Your task to perform on an android device: allow notifications from all sites in the chrome app Image 0: 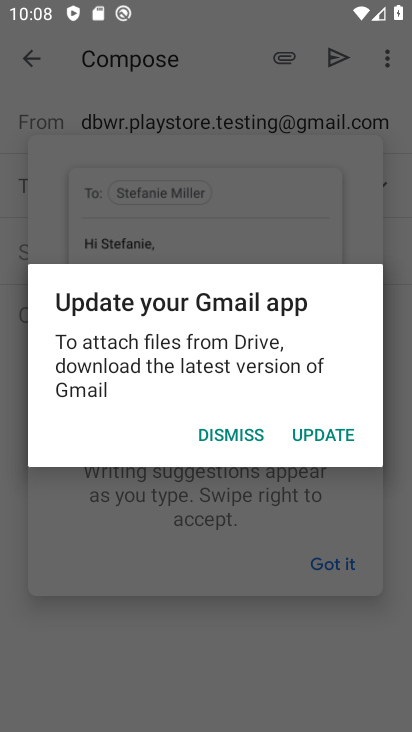
Step 0: press home button
Your task to perform on an android device: allow notifications from all sites in the chrome app Image 1: 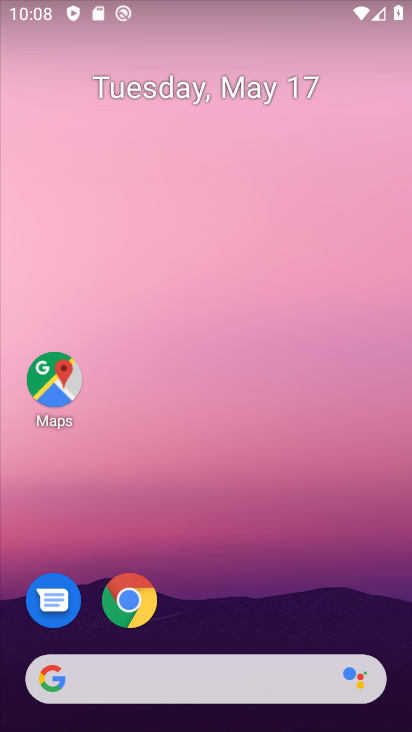
Step 1: drag from (359, 608) to (373, 256)
Your task to perform on an android device: allow notifications from all sites in the chrome app Image 2: 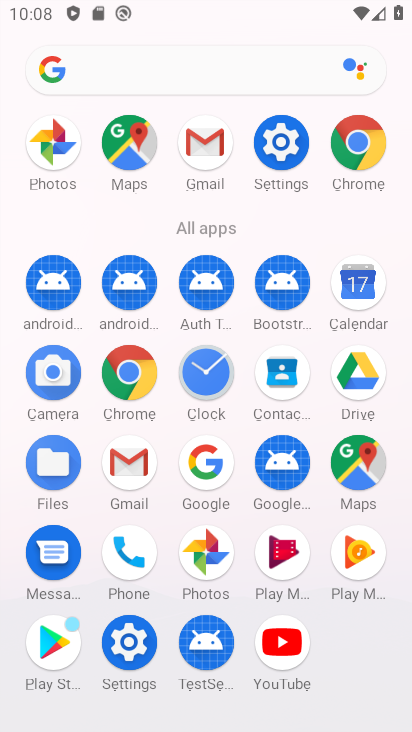
Step 2: click (117, 384)
Your task to perform on an android device: allow notifications from all sites in the chrome app Image 3: 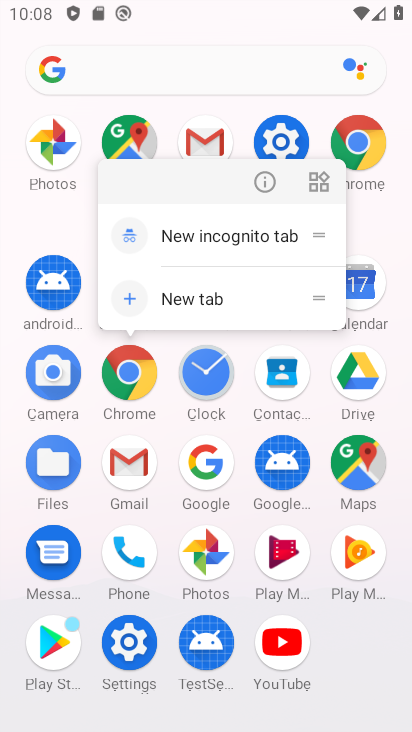
Step 3: click (117, 384)
Your task to perform on an android device: allow notifications from all sites in the chrome app Image 4: 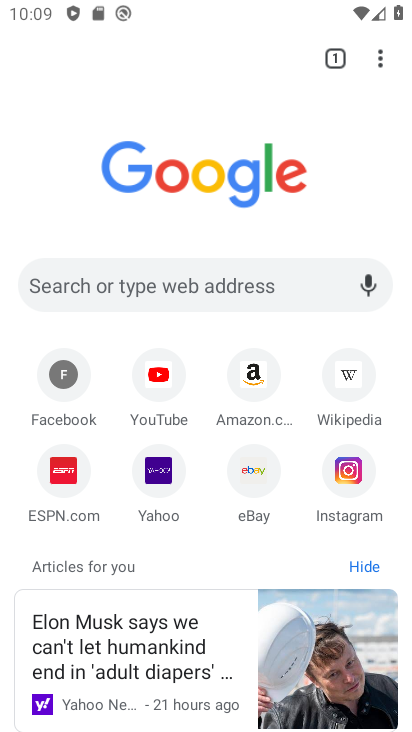
Step 4: click (384, 63)
Your task to perform on an android device: allow notifications from all sites in the chrome app Image 5: 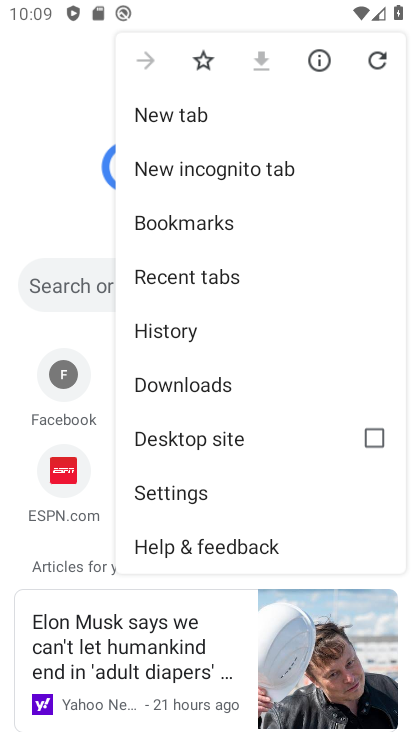
Step 5: click (214, 495)
Your task to perform on an android device: allow notifications from all sites in the chrome app Image 6: 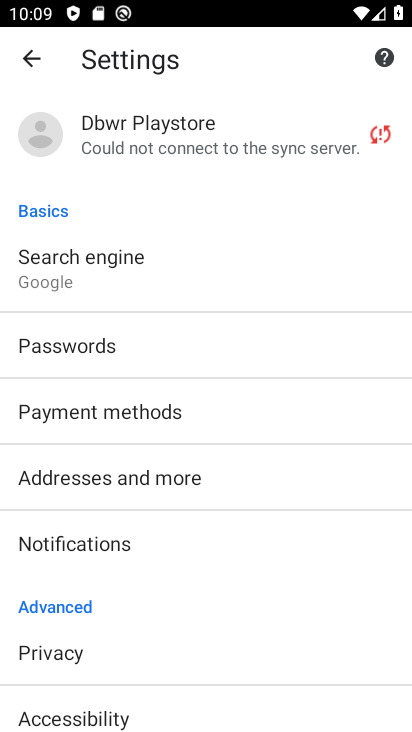
Step 6: drag from (272, 556) to (296, 450)
Your task to perform on an android device: allow notifications from all sites in the chrome app Image 7: 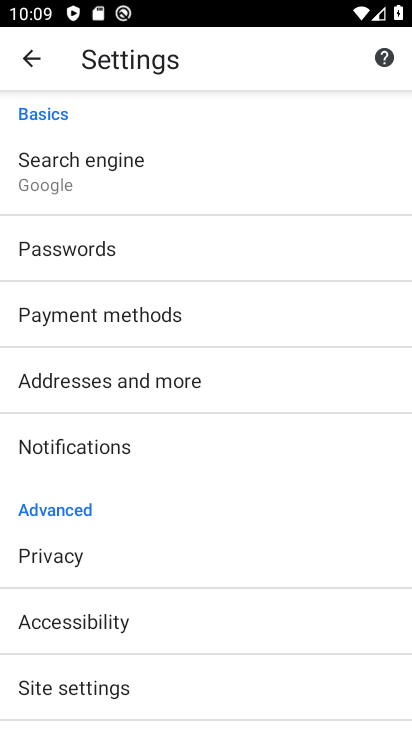
Step 7: drag from (288, 632) to (288, 518)
Your task to perform on an android device: allow notifications from all sites in the chrome app Image 8: 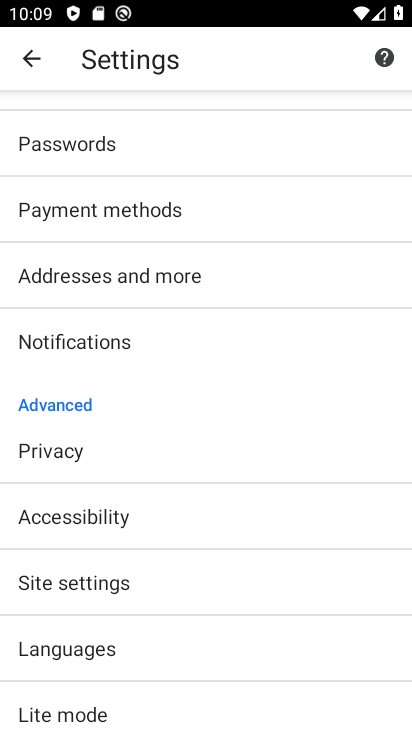
Step 8: drag from (281, 667) to (301, 573)
Your task to perform on an android device: allow notifications from all sites in the chrome app Image 9: 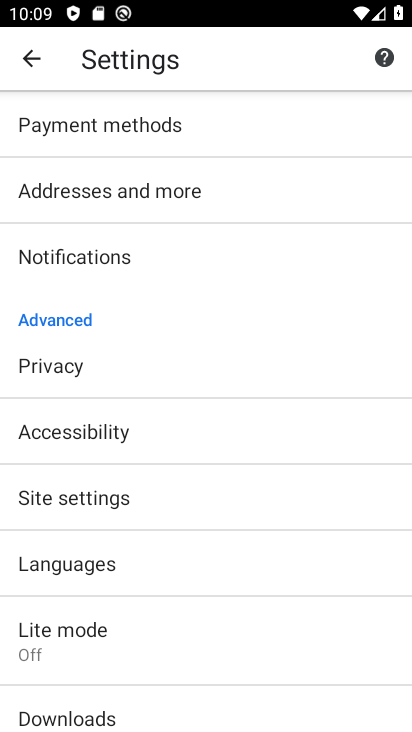
Step 9: drag from (284, 673) to (289, 570)
Your task to perform on an android device: allow notifications from all sites in the chrome app Image 10: 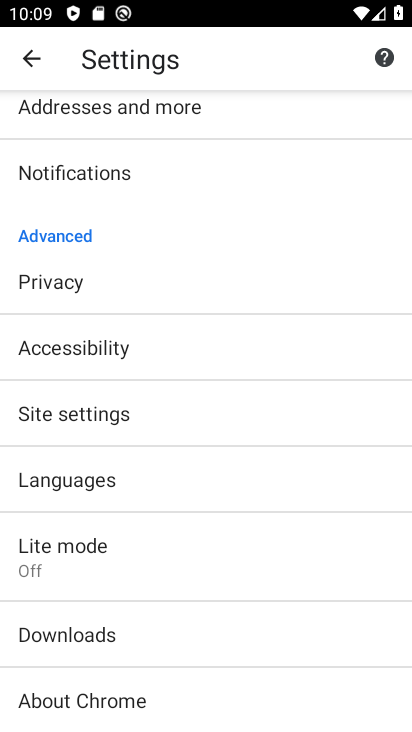
Step 10: drag from (267, 671) to (267, 592)
Your task to perform on an android device: allow notifications from all sites in the chrome app Image 11: 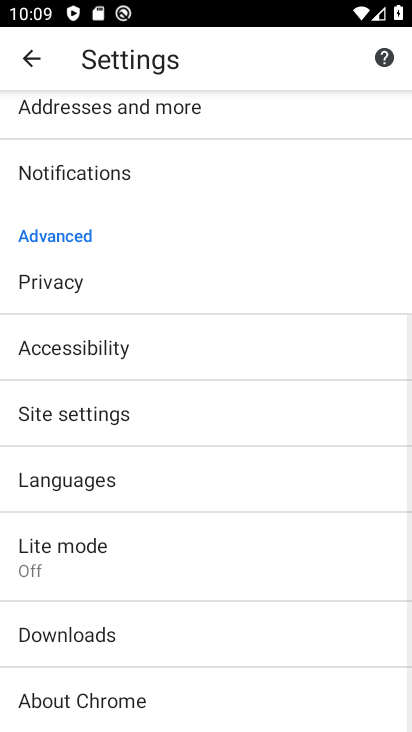
Step 11: drag from (267, 678) to (258, 611)
Your task to perform on an android device: allow notifications from all sites in the chrome app Image 12: 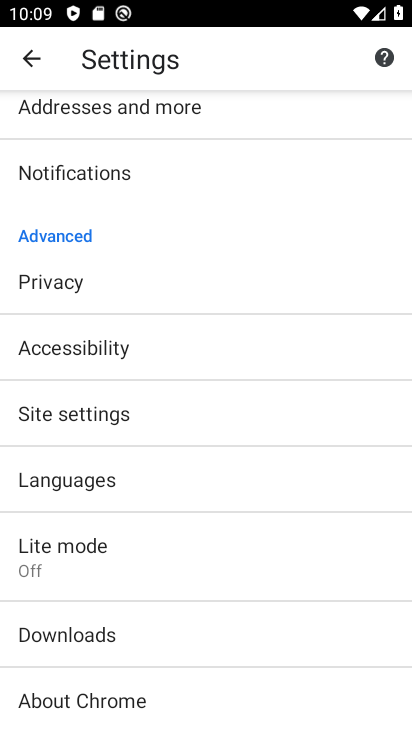
Step 12: click (252, 477)
Your task to perform on an android device: allow notifications from all sites in the chrome app Image 13: 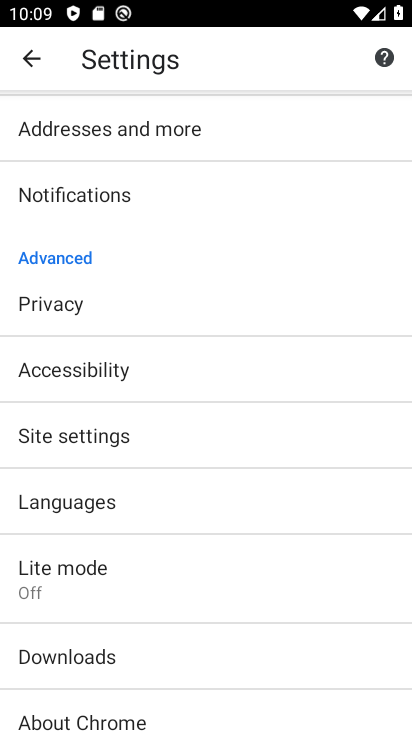
Step 13: drag from (261, 416) to (262, 496)
Your task to perform on an android device: allow notifications from all sites in the chrome app Image 14: 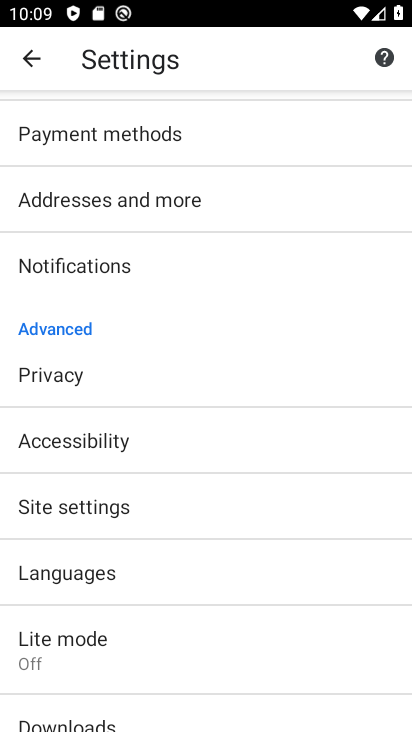
Step 14: click (256, 512)
Your task to perform on an android device: allow notifications from all sites in the chrome app Image 15: 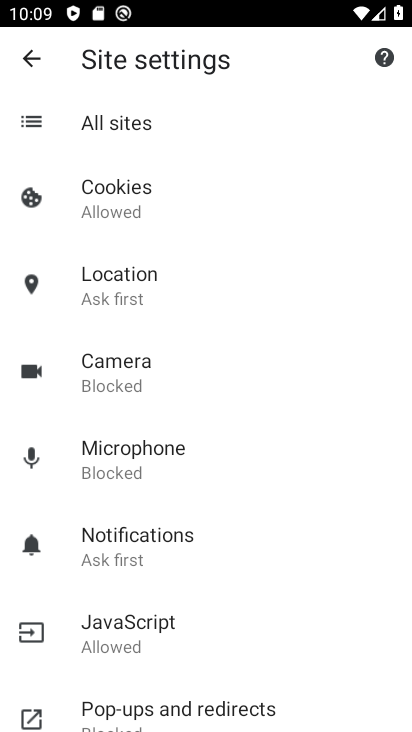
Step 15: click (278, 554)
Your task to perform on an android device: allow notifications from all sites in the chrome app Image 16: 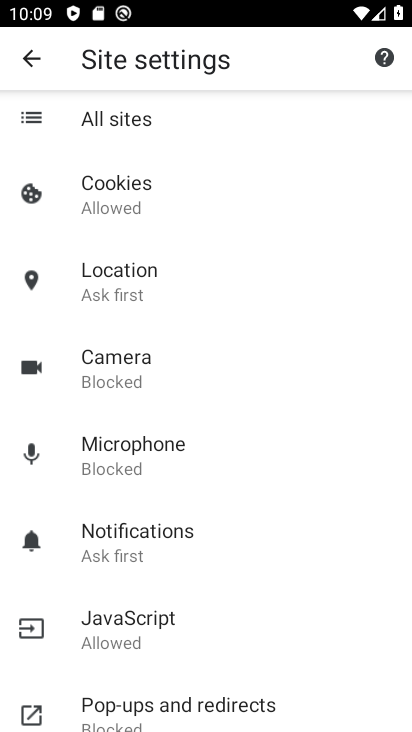
Step 16: click (299, 540)
Your task to perform on an android device: allow notifications from all sites in the chrome app Image 17: 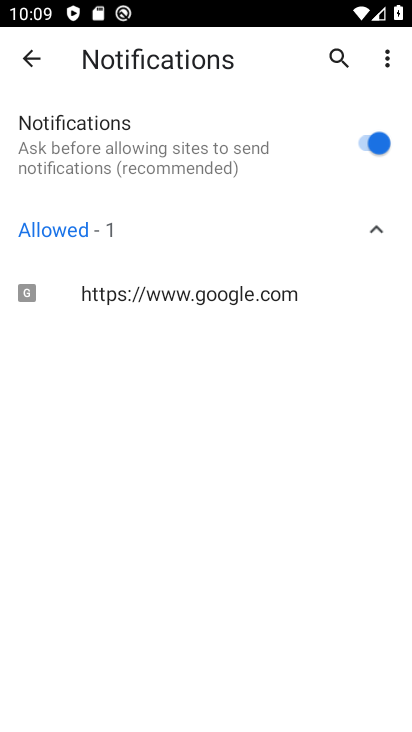
Step 17: task complete